Your task to perform on an android device: open sync settings in chrome Image 0: 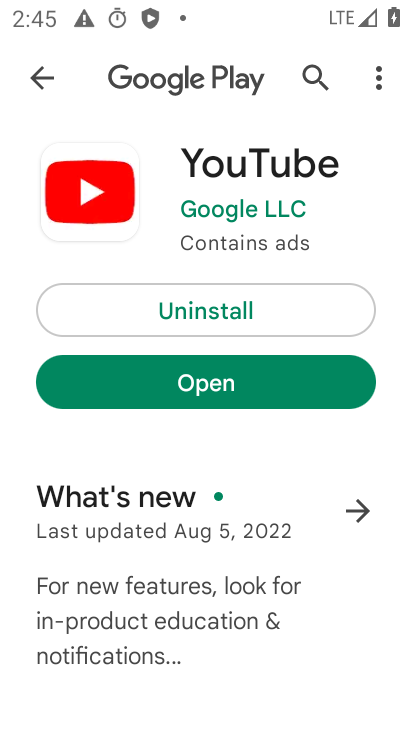
Step 0: press home button
Your task to perform on an android device: open sync settings in chrome Image 1: 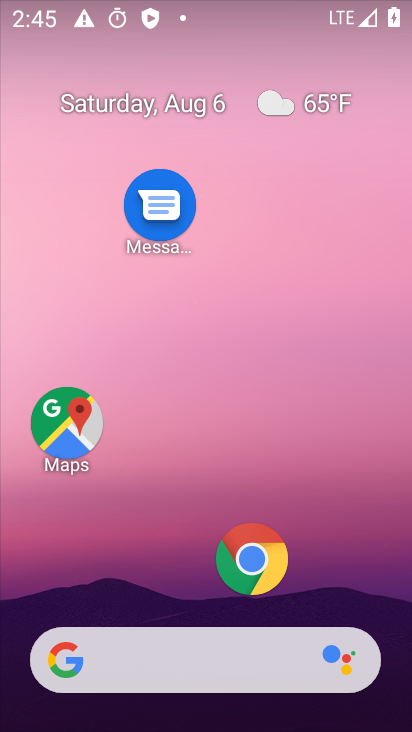
Step 1: click (243, 557)
Your task to perform on an android device: open sync settings in chrome Image 2: 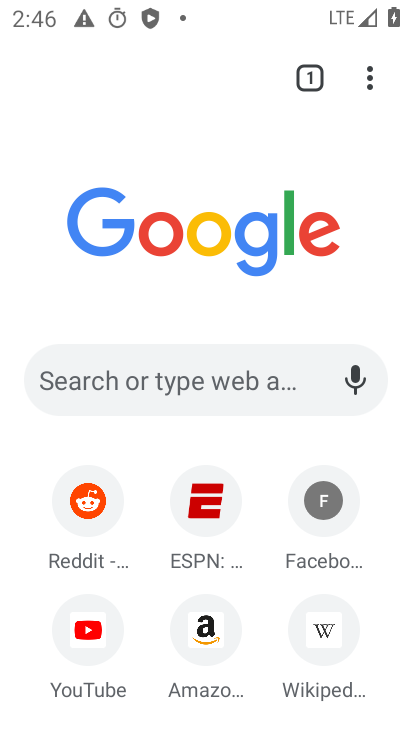
Step 2: click (366, 78)
Your task to perform on an android device: open sync settings in chrome Image 3: 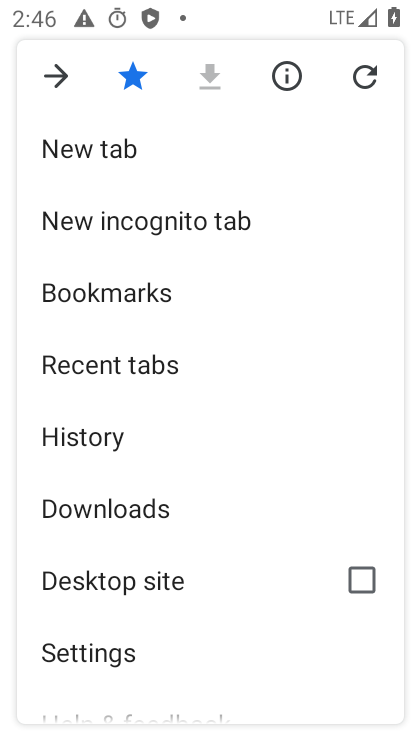
Step 3: click (90, 649)
Your task to perform on an android device: open sync settings in chrome Image 4: 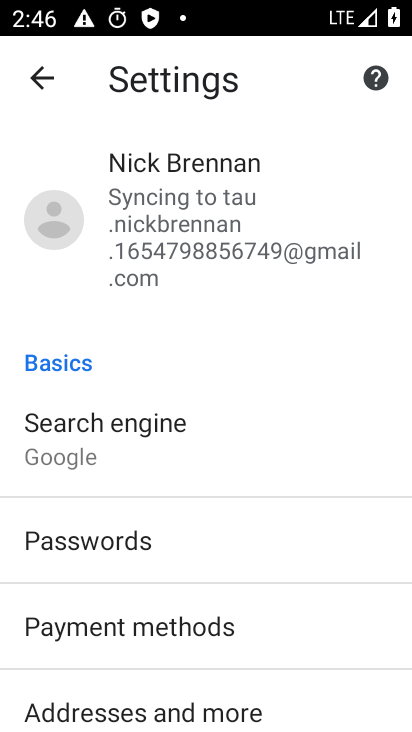
Step 4: click (235, 228)
Your task to perform on an android device: open sync settings in chrome Image 5: 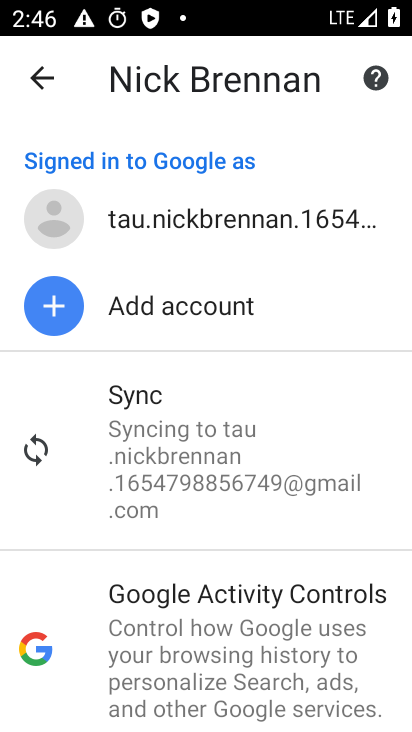
Step 5: click (180, 430)
Your task to perform on an android device: open sync settings in chrome Image 6: 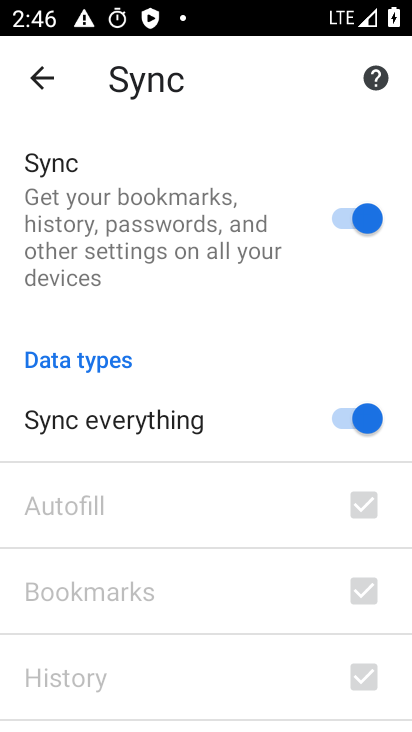
Step 6: task complete